Your task to perform on an android device: set an alarm Image 0: 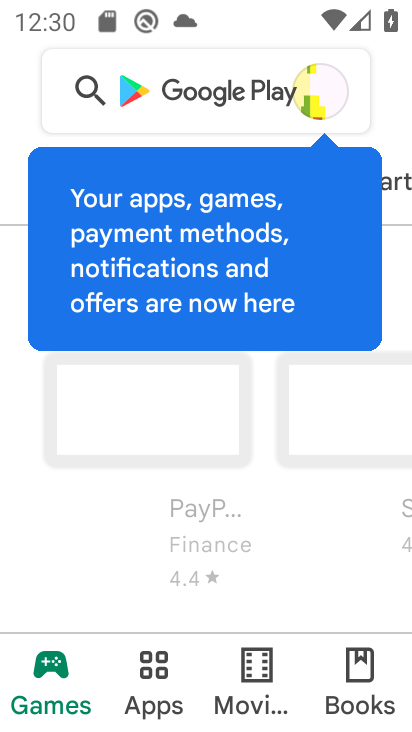
Step 0: press home button
Your task to perform on an android device: set an alarm Image 1: 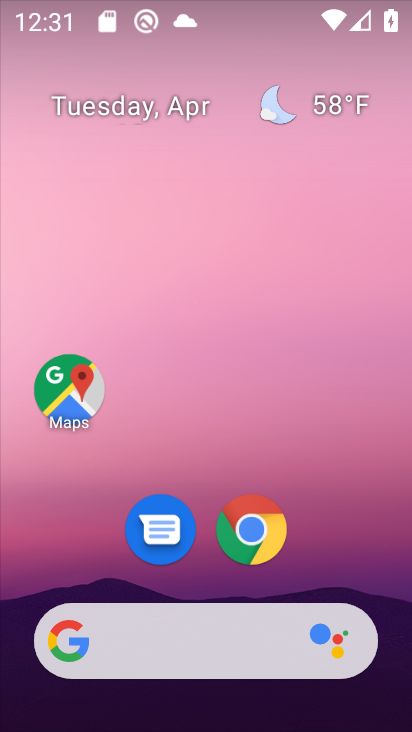
Step 1: drag from (392, 607) to (258, 113)
Your task to perform on an android device: set an alarm Image 2: 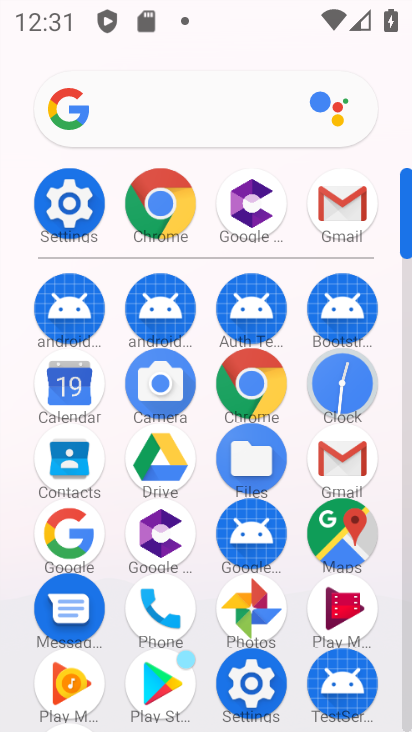
Step 2: click (365, 381)
Your task to perform on an android device: set an alarm Image 3: 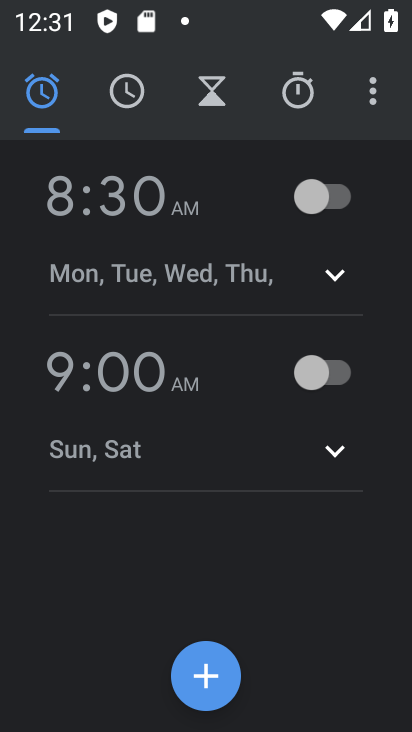
Step 3: click (331, 200)
Your task to perform on an android device: set an alarm Image 4: 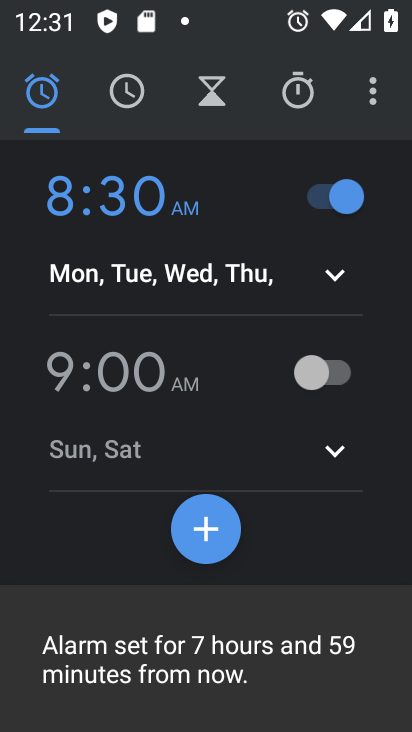
Step 4: task complete